Your task to perform on an android device: Show me productivity apps on the Play Store Image 0: 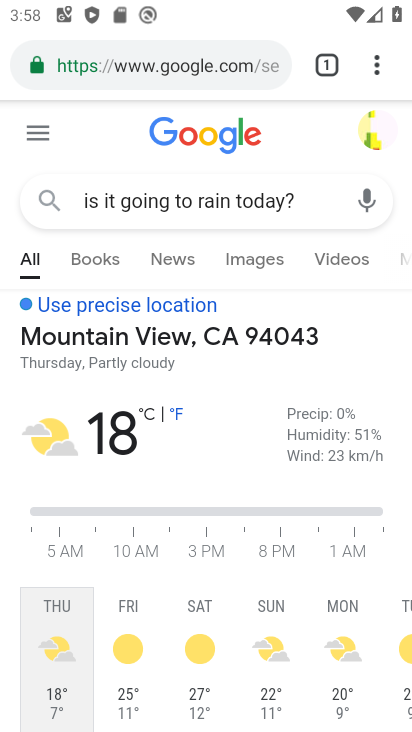
Step 0: click (259, 590)
Your task to perform on an android device: Show me productivity apps on the Play Store Image 1: 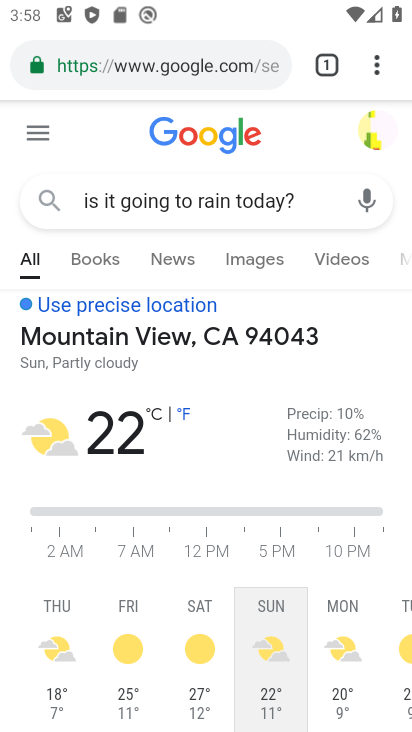
Step 1: click (212, 63)
Your task to perform on an android device: Show me productivity apps on the Play Store Image 2: 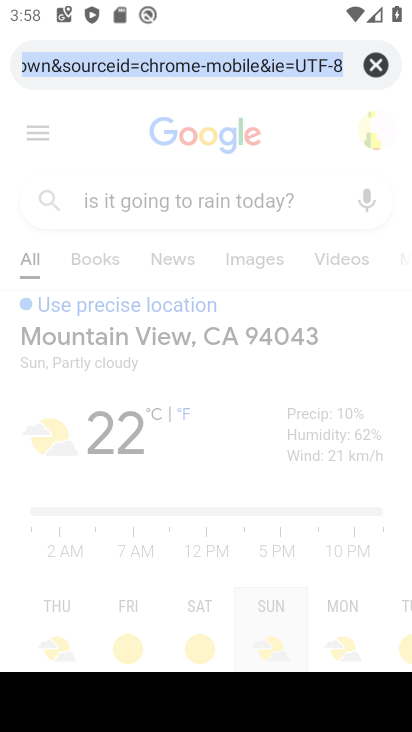
Step 2: press home button
Your task to perform on an android device: Show me productivity apps on the Play Store Image 3: 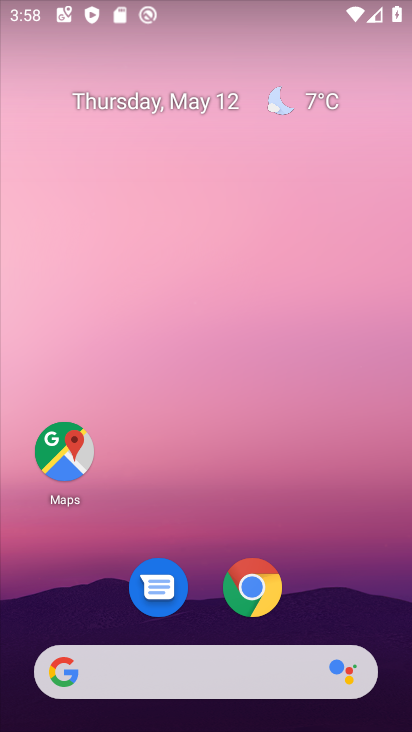
Step 3: drag from (325, 604) to (333, 211)
Your task to perform on an android device: Show me productivity apps on the Play Store Image 4: 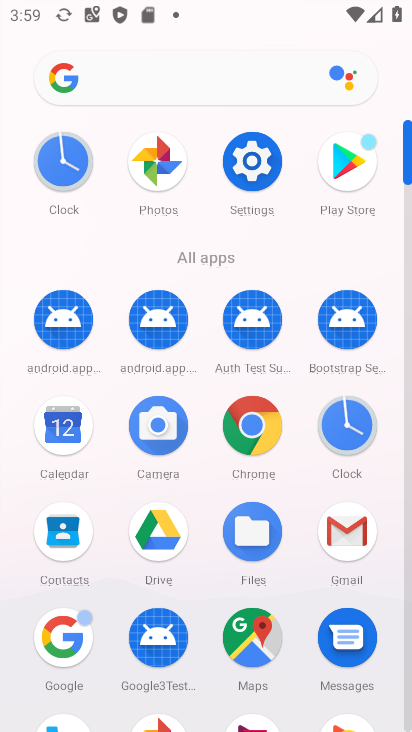
Step 4: click (351, 179)
Your task to perform on an android device: Show me productivity apps on the Play Store Image 5: 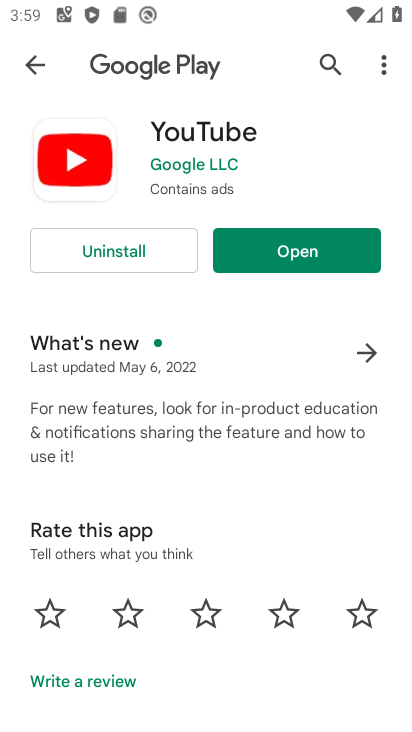
Step 5: click (44, 65)
Your task to perform on an android device: Show me productivity apps on the Play Store Image 6: 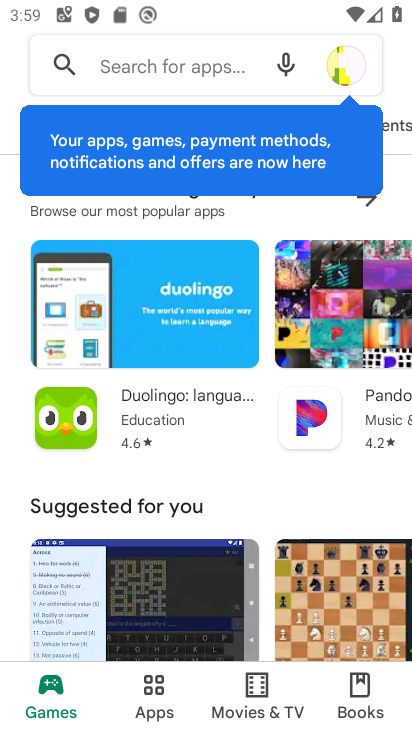
Step 6: click (160, 710)
Your task to perform on an android device: Show me productivity apps on the Play Store Image 7: 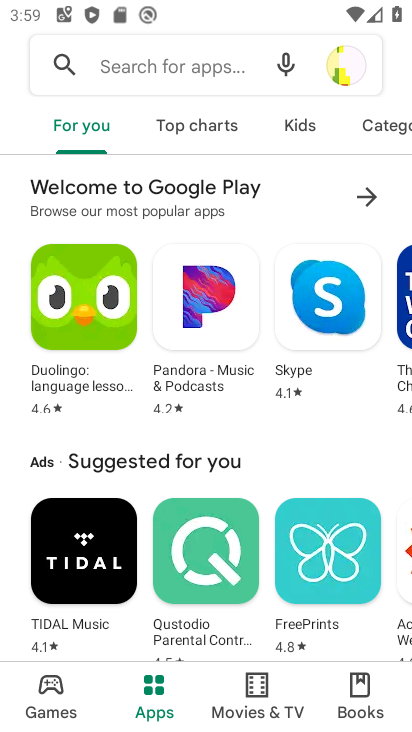
Step 7: click (376, 124)
Your task to perform on an android device: Show me productivity apps on the Play Store Image 8: 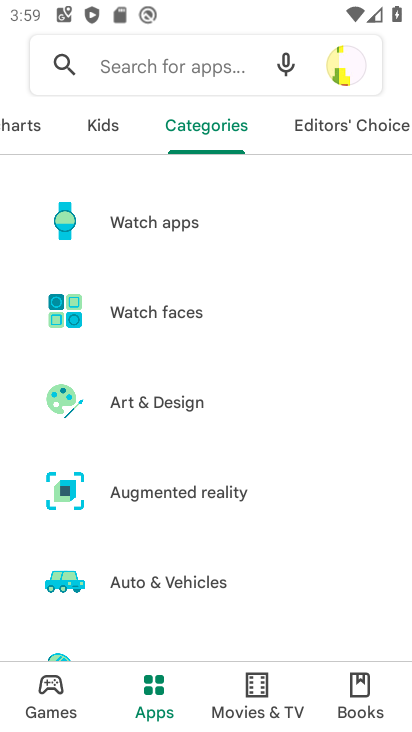
Step 8: drag from (230, 573) to (235, 220)
Your task to perform on an android device: Show me productivity apps on the Play Store Image 9: 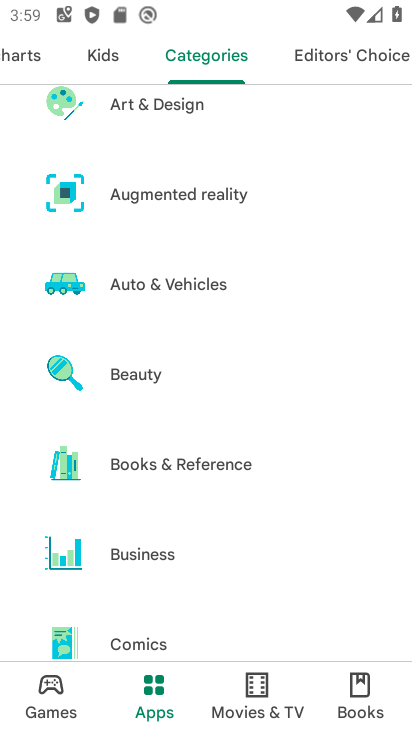
Step 9: drag from (195, 609) to (265, 156)
Your task to perform on an android device: Show me productivity apps on the Play Store Image 10: 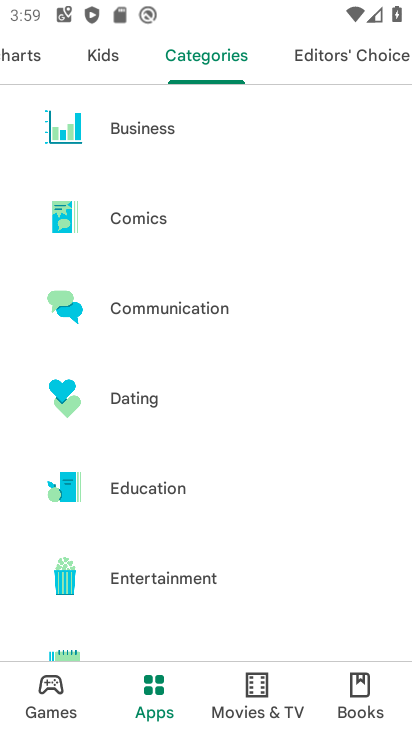
Step 10: drag from (186, 622) to (247, 181)
Your task to perform on an android device: Show me productivity apps on the Play Store Image 11: 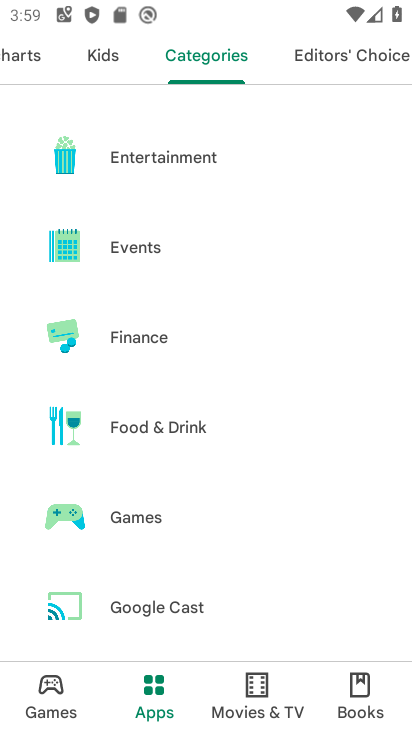
Step 11: drag from (226, 606) to (232, 166)
Your task to perform on an android device: Show me productivity apps on the Play Store Image 12: 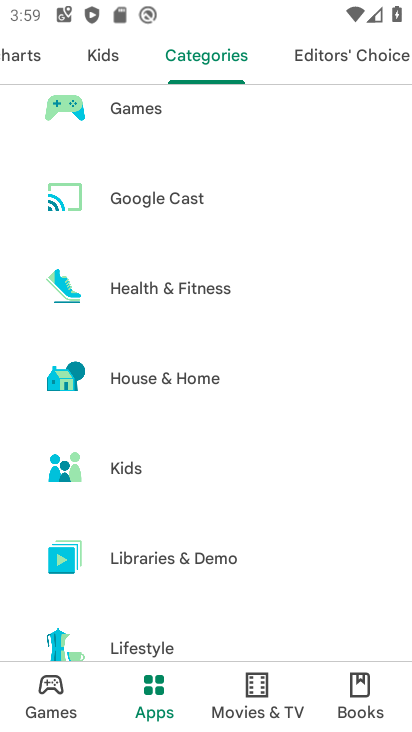
Step 12: drag from (225, 605) to (232, 218)
Your task to perform on an android device: Show me productivity apps on the Play Store Image 13: 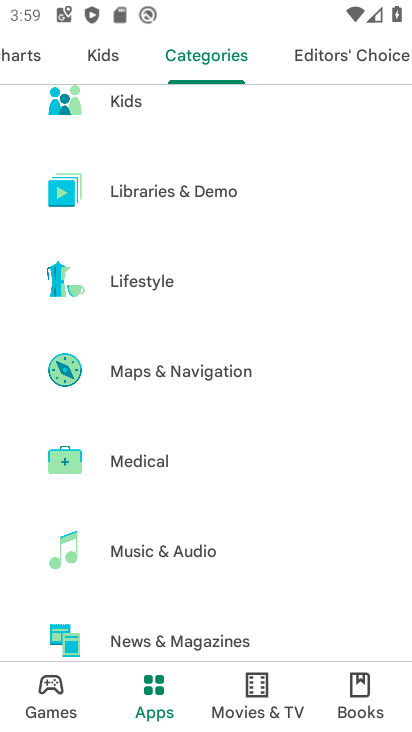
Step 13: drag from (285, 593) to (313, 197)
Your task to perform on an android device: Show me productivity apps on the Play Store Image 14: 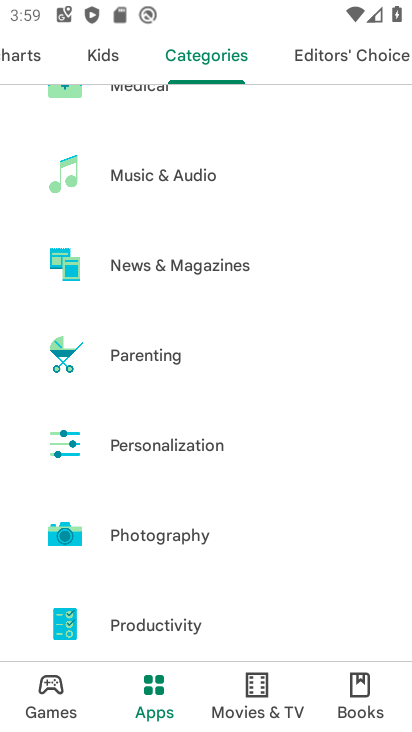
Step 14: click (190, 632)
Your task to perform on an android device: Show me productivity apps on the Play Store Image 15: 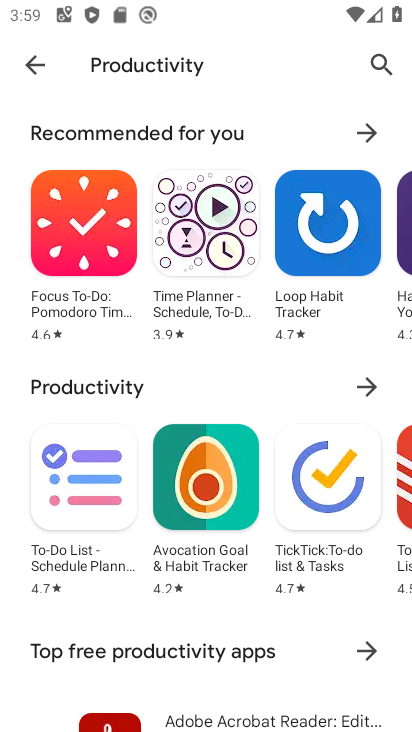
Step 15: task complete